Your task to perform on an android device: Add jbl charge 4 to the cart on amazon Image 0: 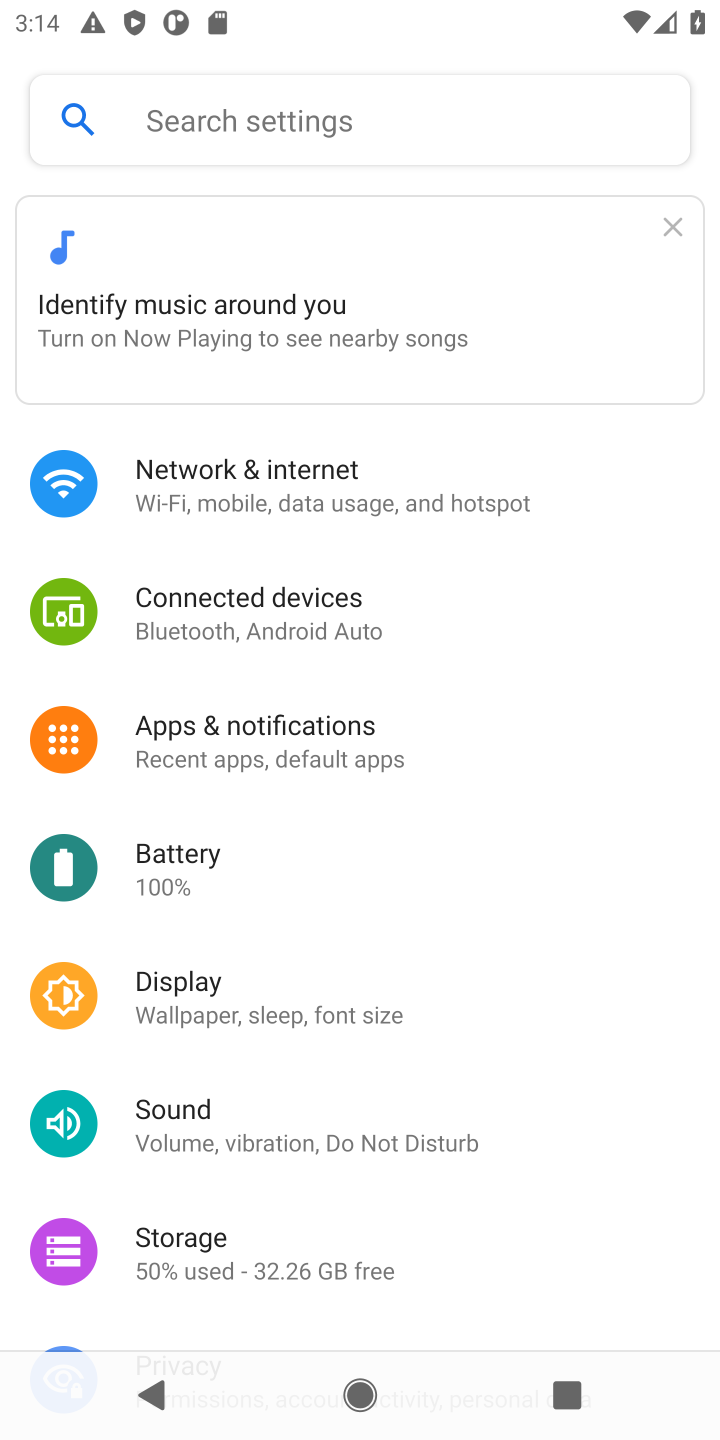
Step 0: press home button
Your task to perform on an android device: Add jbl charge 4 to the cart on amazon Image 1: 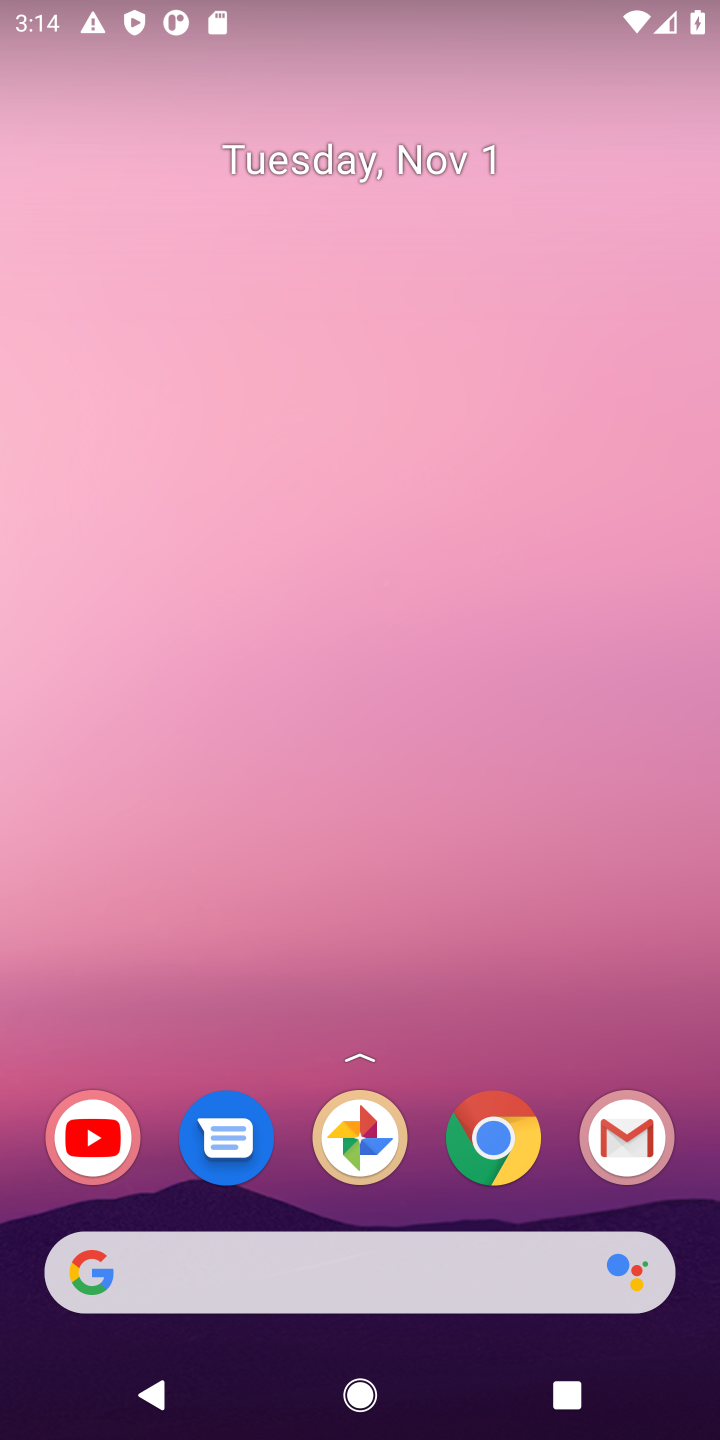
Step 1: click (479, 1139)
Your task to perform on an android device: Add jbl charge 4 to the cart on amazon Image 2: 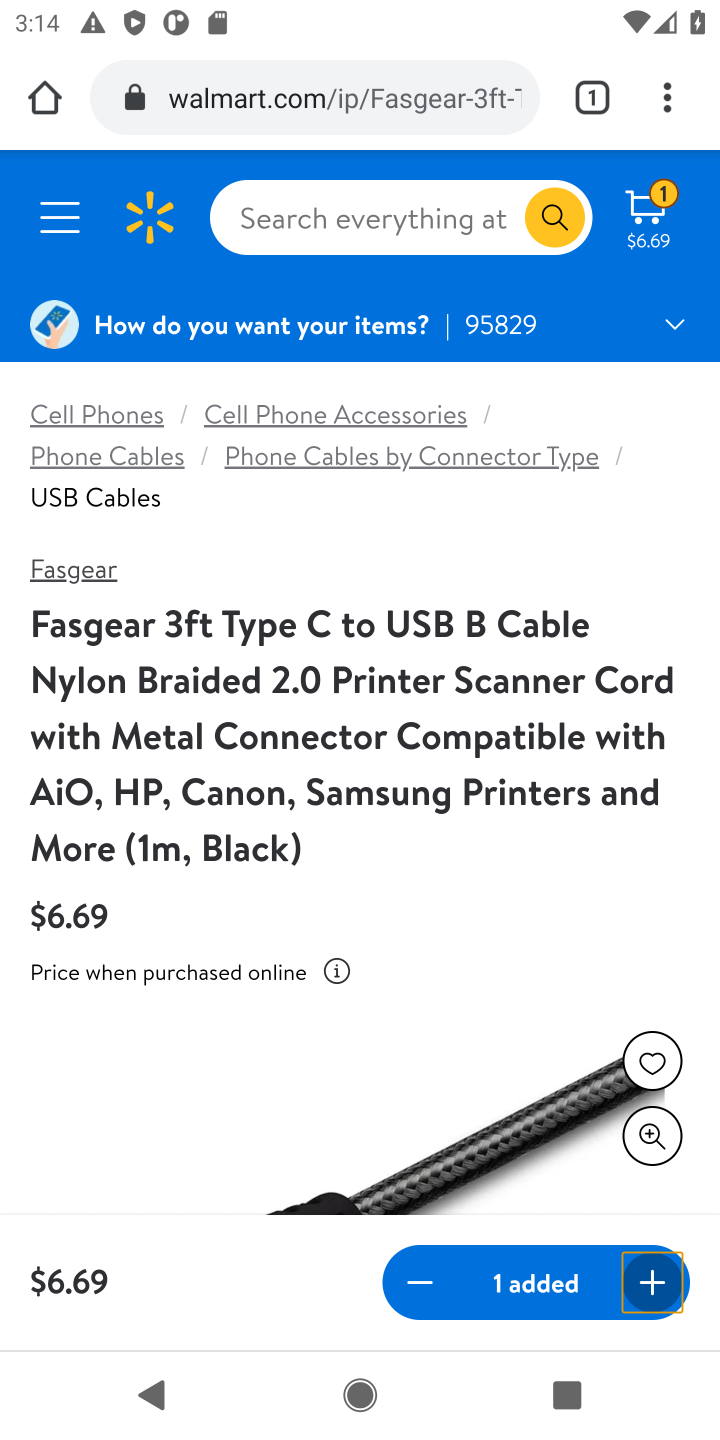
Step 2: click (346, 86)
Your task to perform on an android device: Add jbl charge 4 to the cart on amazon Image 3: 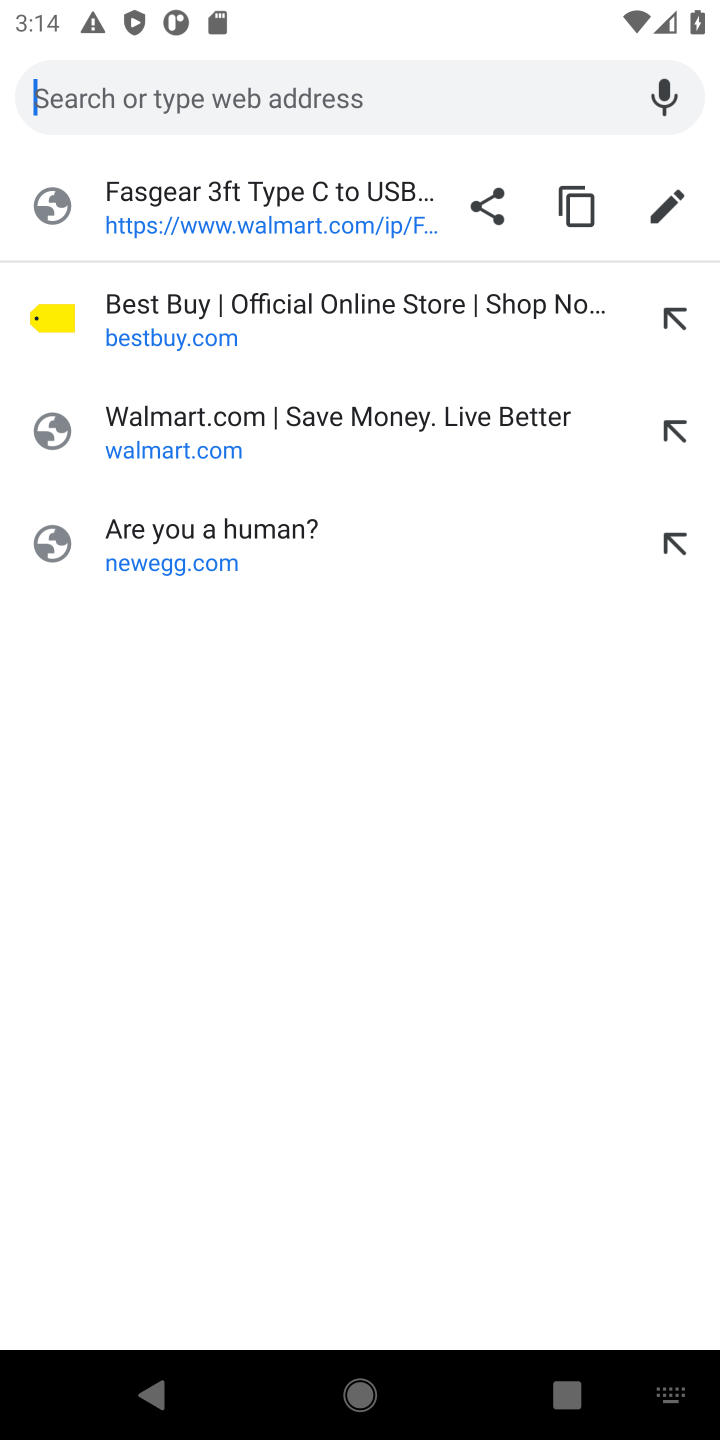
Step 3: type "amazon"
Your task to perform on an android device: Add jbl charge 4 to the cart on amazon Image 4: 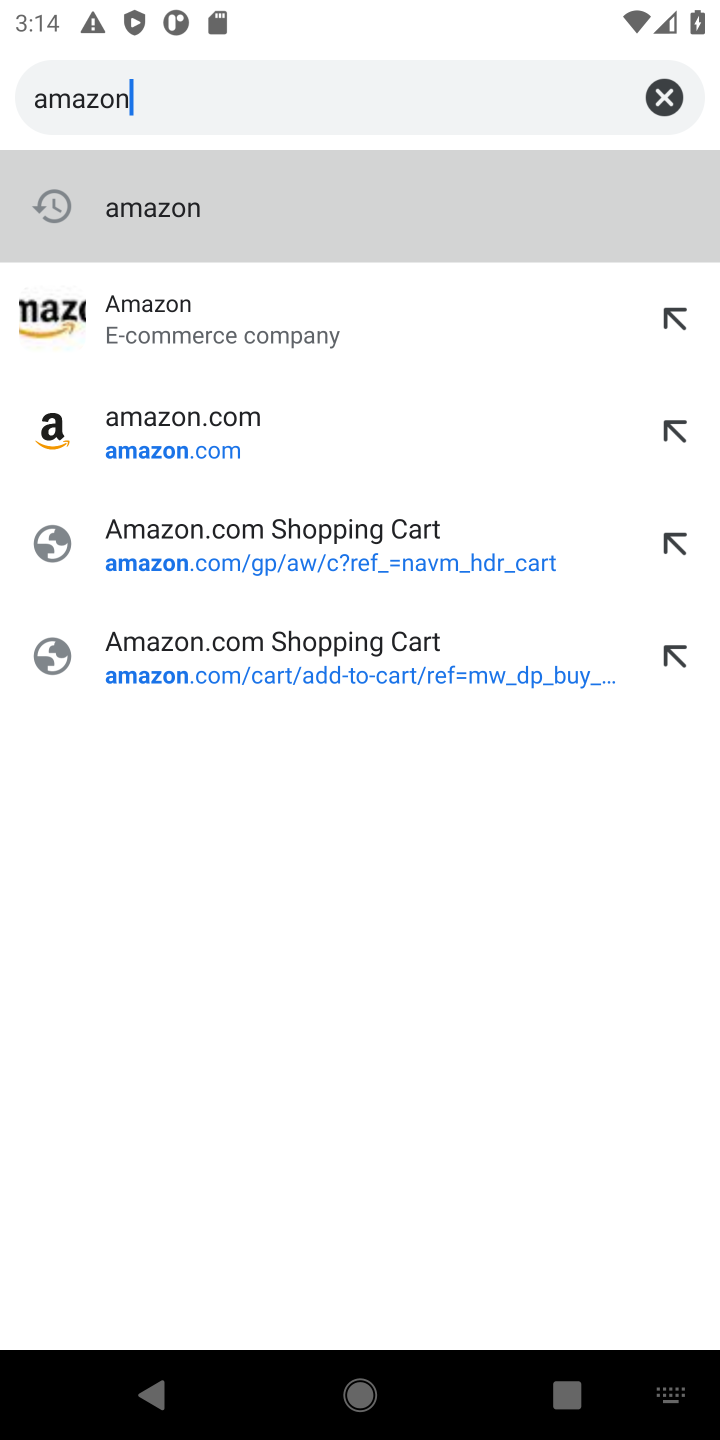
Step 4: click (322, 220)
Your task to perform on an android device: Add jbl charge 4 to the cart on amazon Image 5: 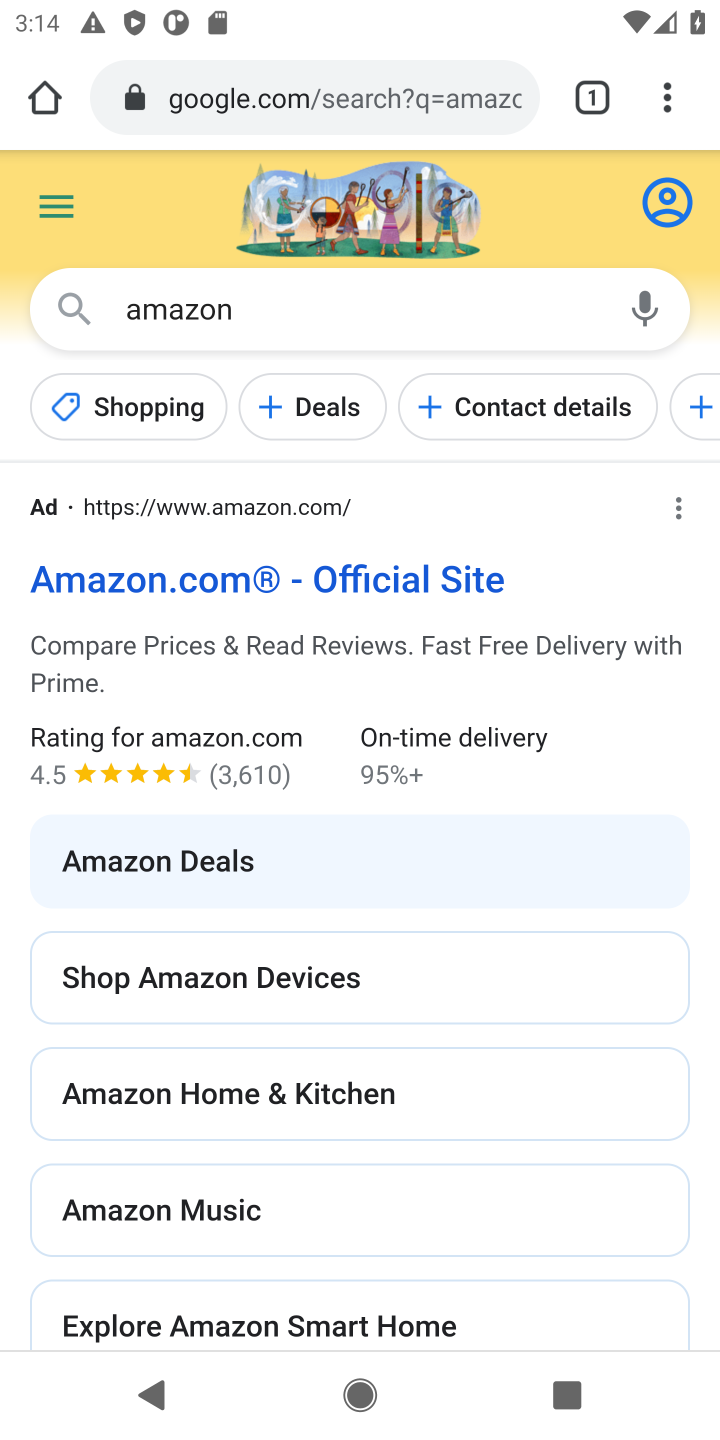
Step 5: click (193, 586)
Your task to perform on an android device: Add jbl charge 4 to the cart on amazon Image 6: 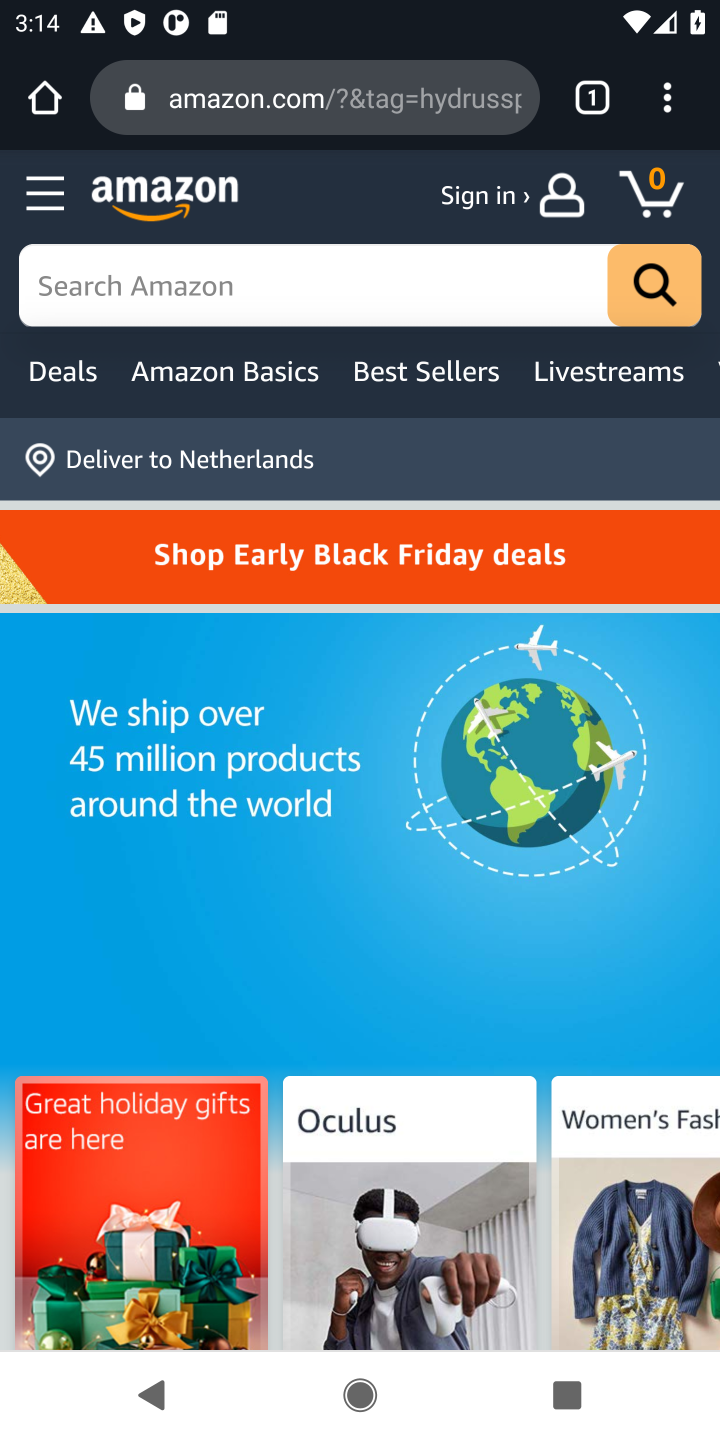
Step 6: click (419, 276)
Your task to perform on an android device: Add jbl charge 4 to the cart on amazon Image 7: 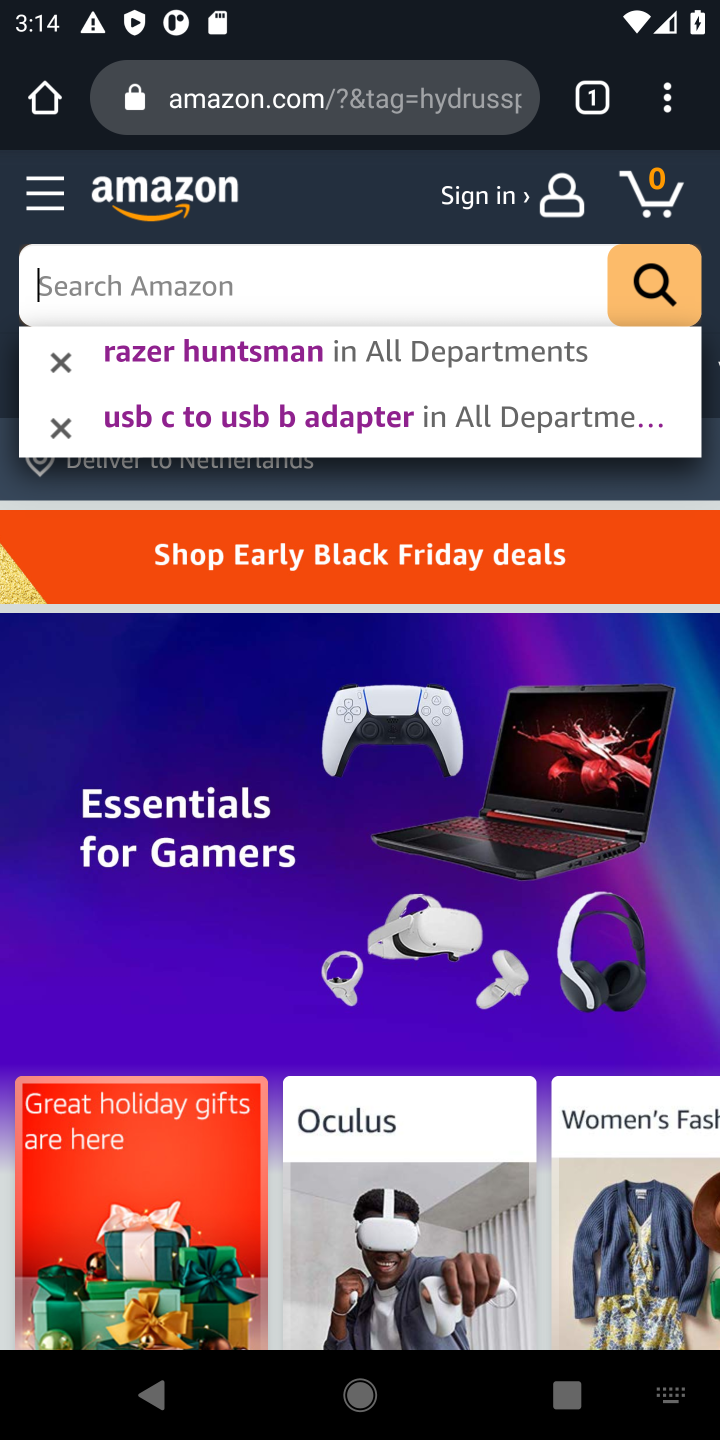
Step 7: type " jbl charge 4"
Your task to perform on an android device: Add jbl charge 4 to the cart on amazon Image 8: 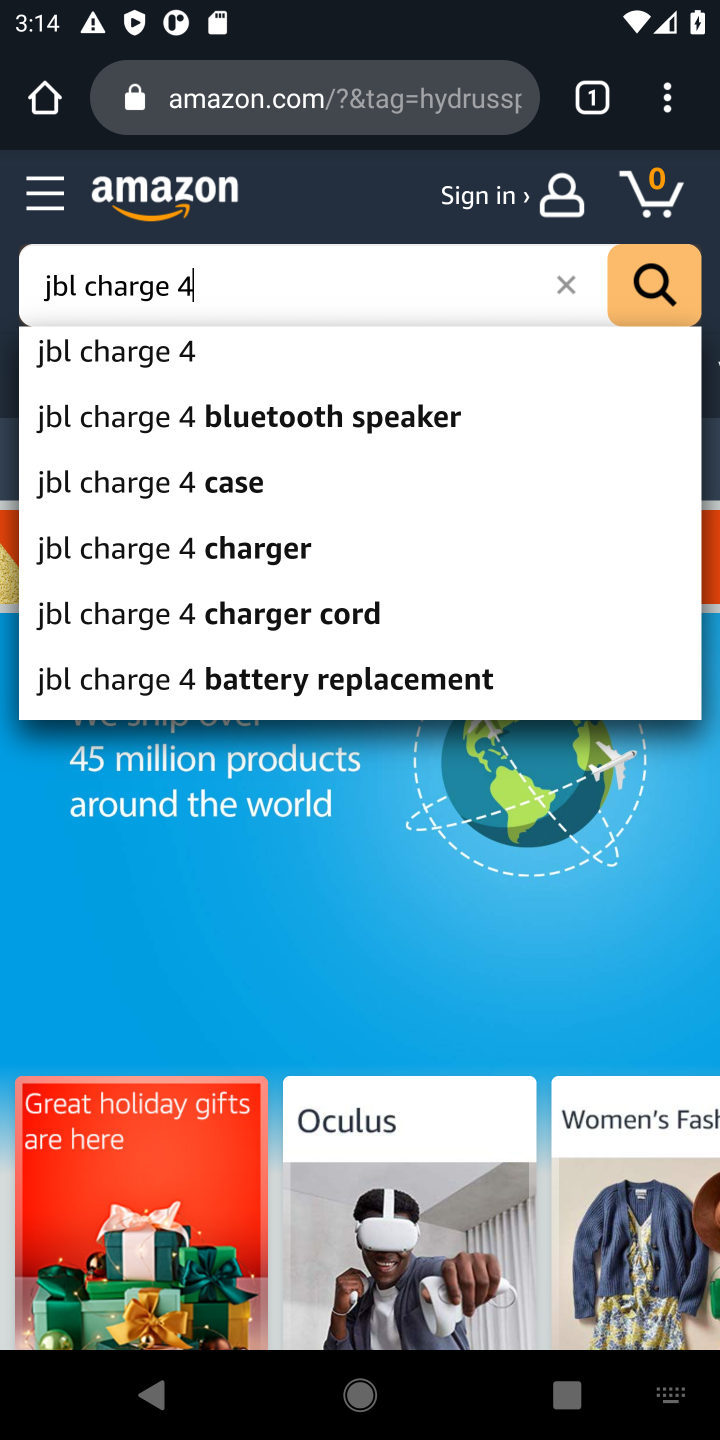
Step 8: click (149, 354)
Your task to perform on an android device: Add jbl charge 4 to the cart on amazon Image 9: 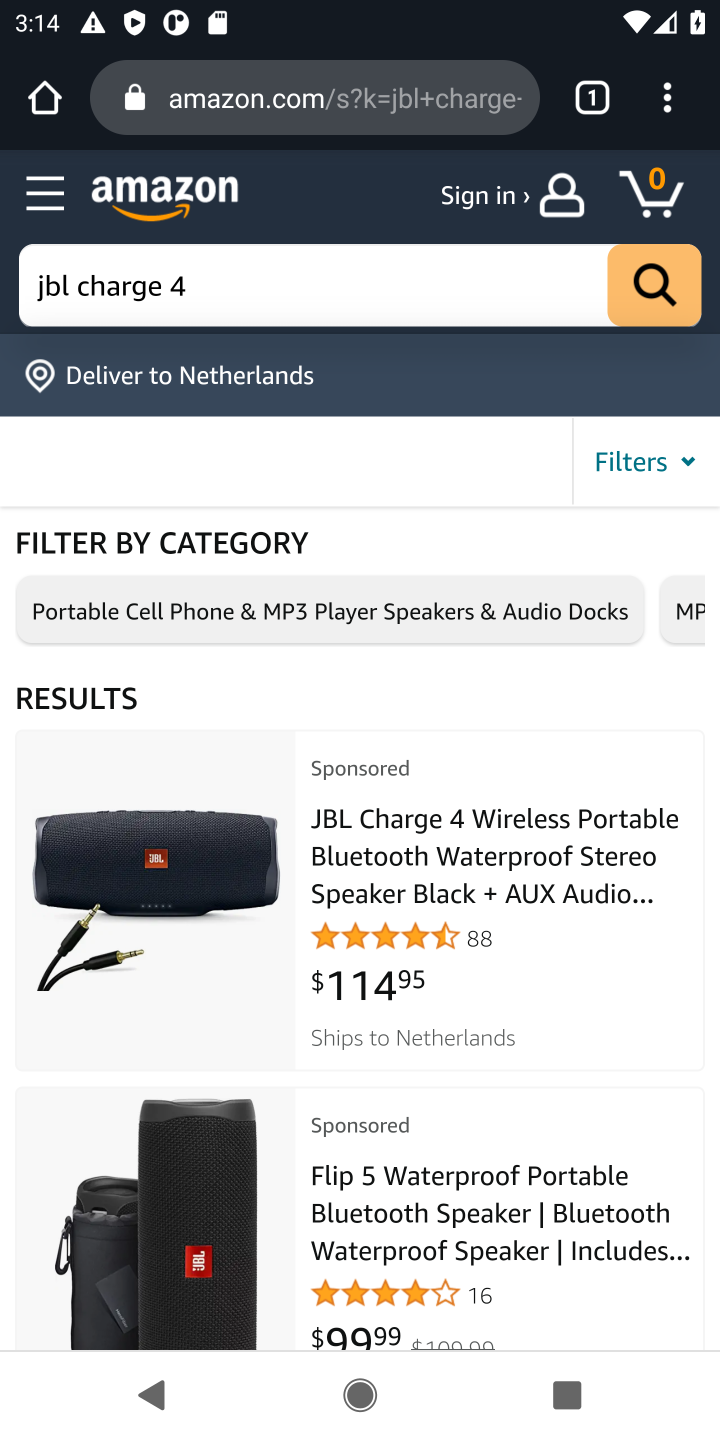
Step 9: click (401, 830)
Your task to perform on an android device: Add jbl charge 4 to the cart on amazon Image 10: 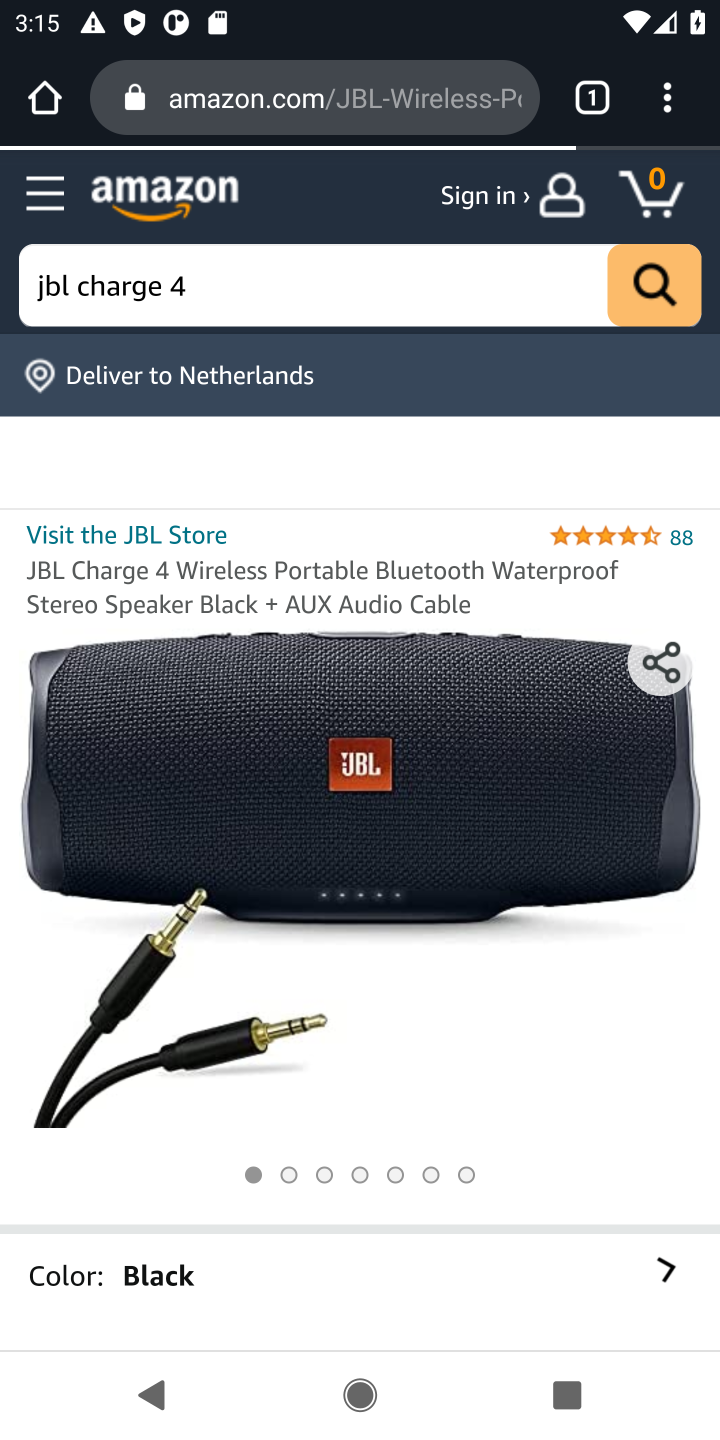
Step 10: drag from (358, 1087) to (427, 504)
Your task to perform on an android device: Add jbl charge 4 to the cart on amazon Image 11: 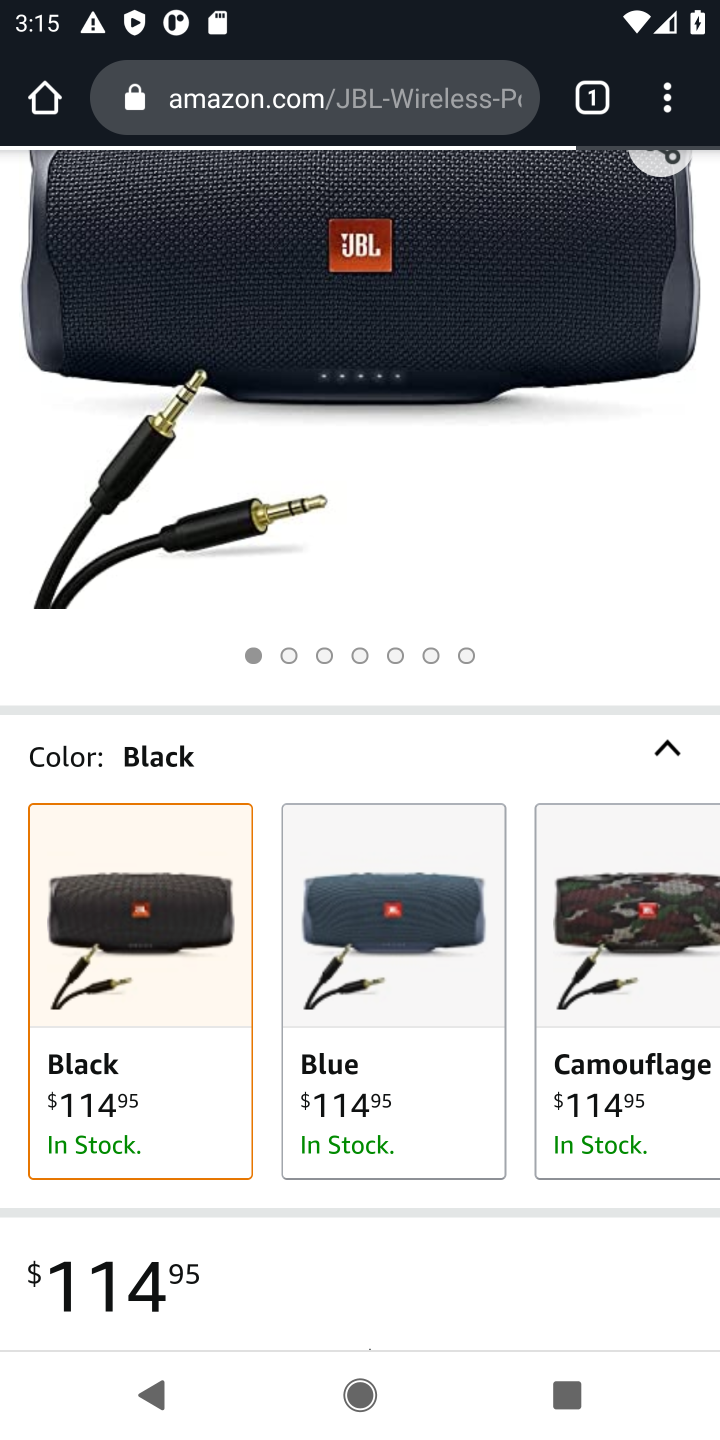
Step 11: drag from (401, 1027) to (384, 473)
Your task to perform on an android device: Add jbl charge 4 to the cart on amazon Image 12: 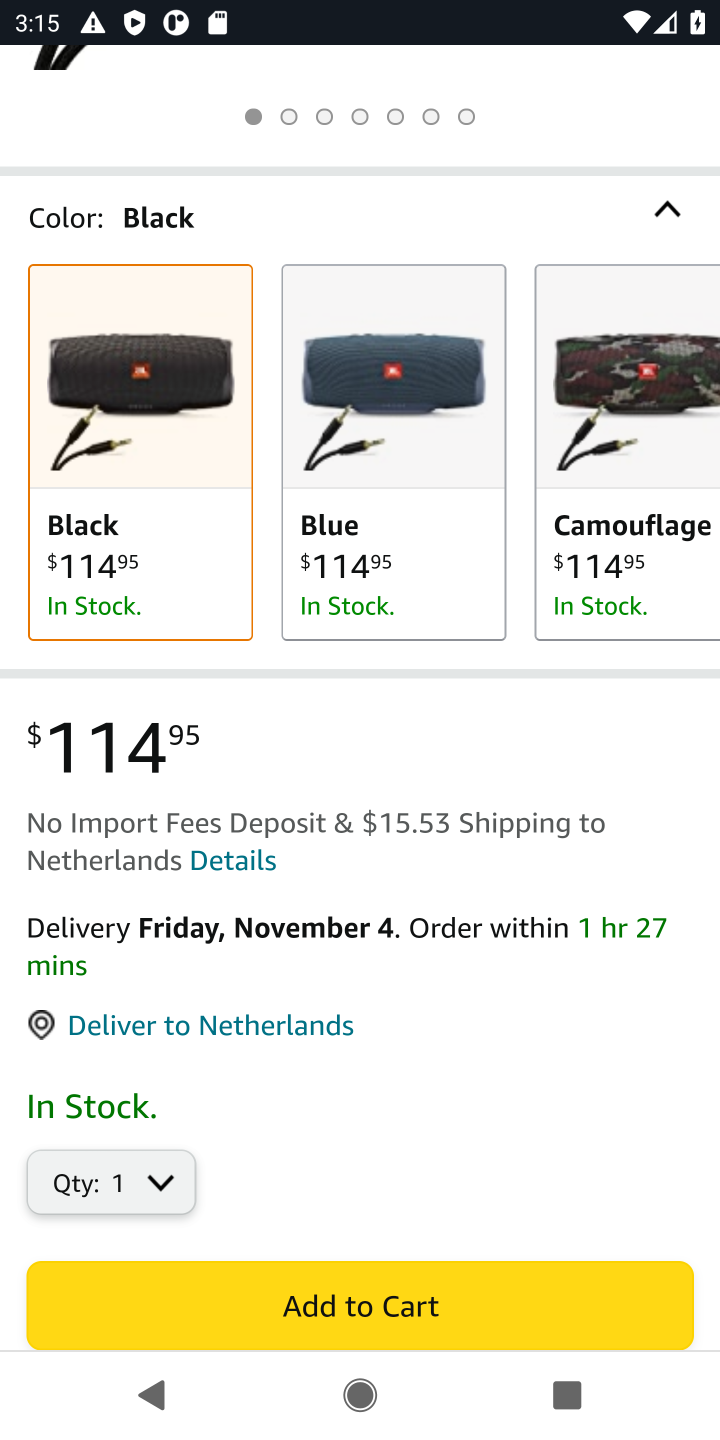
Step 12: drag from (321, 1114) to (393, 715)
Your task to perform on an android device: Add jbl charge 4 to the cart on amazon Image 13: 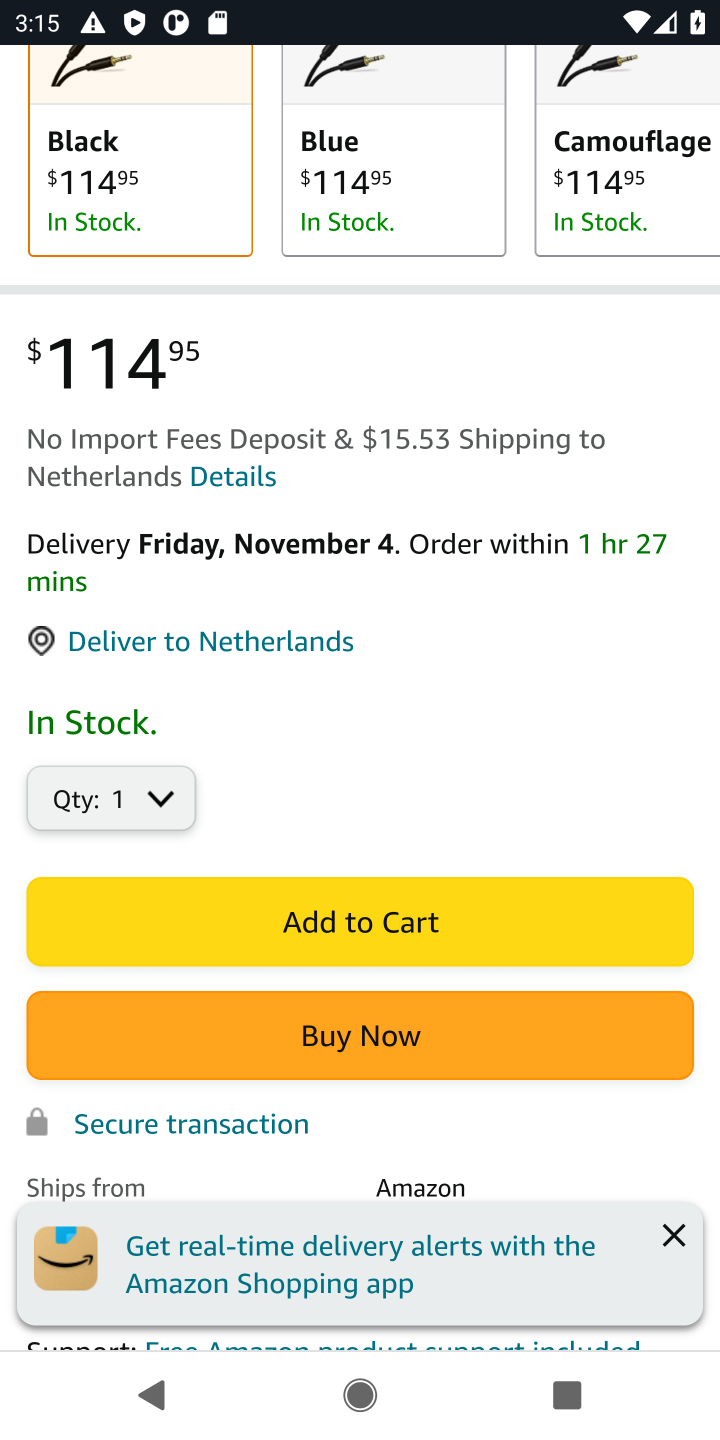
Step 13: click (368, 910)
Your task to perform on an android device: Add jbl charge 4 to the cart on amazon Image 14: 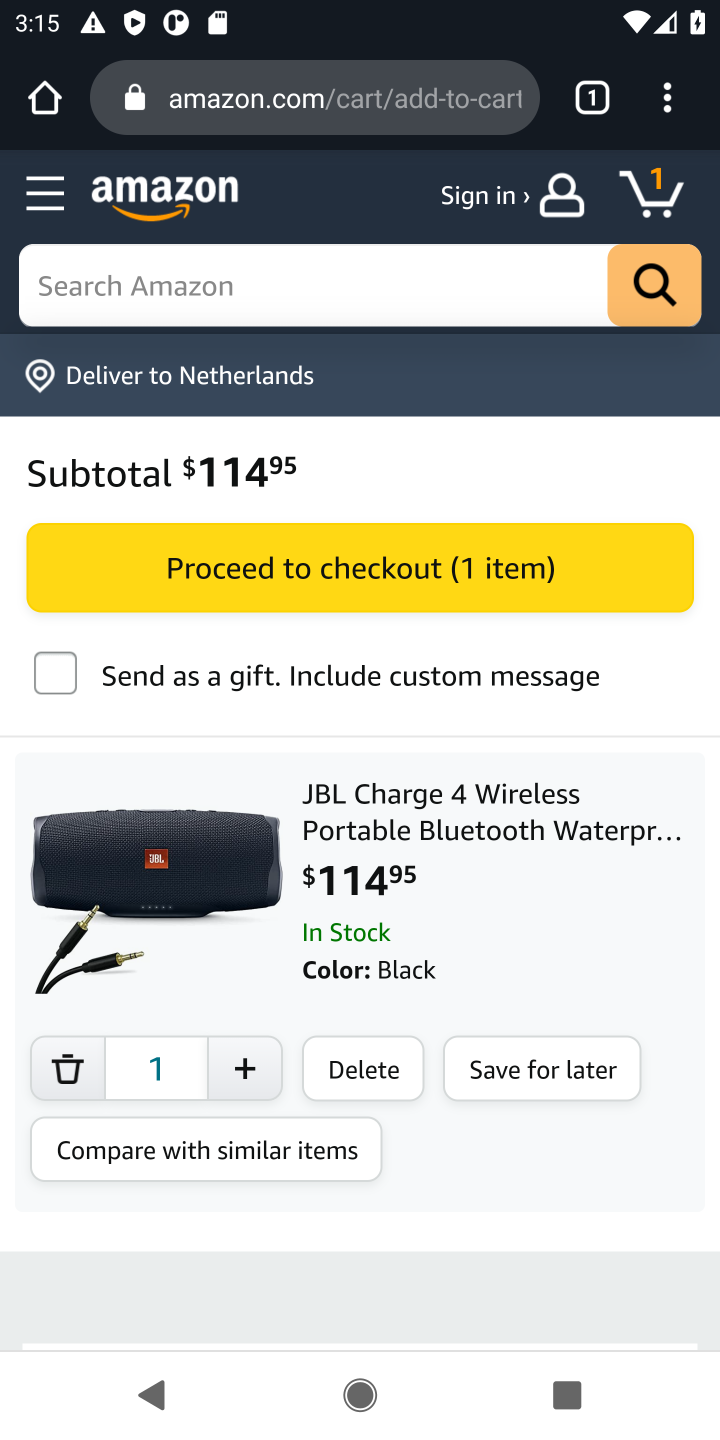
Step 14: task complete